Your task to perform on an android device: Go to wifi settings Image 0: 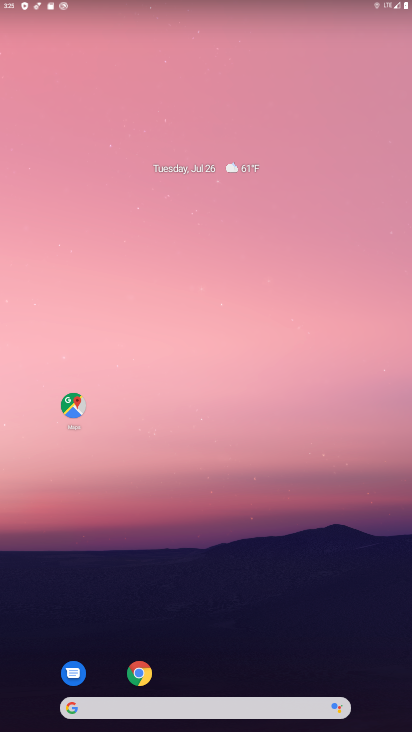
Step 0: drag from (223, 632) to (247, 3)
Your task to perform on an android device: Go to wifi settings Image 1: 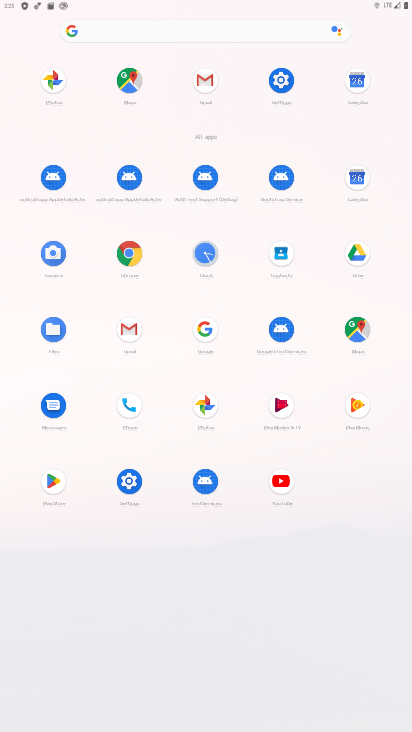
Step 1: click (281, 74)
Your task to perform on an android device: Go to wifi settings Image 2: 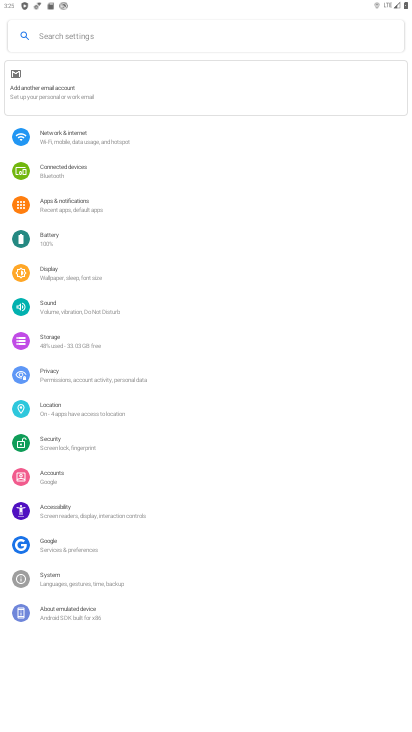
Step 2: click (103, 132)
Your task to perform on an android device: Go to wifi settings Image 3: 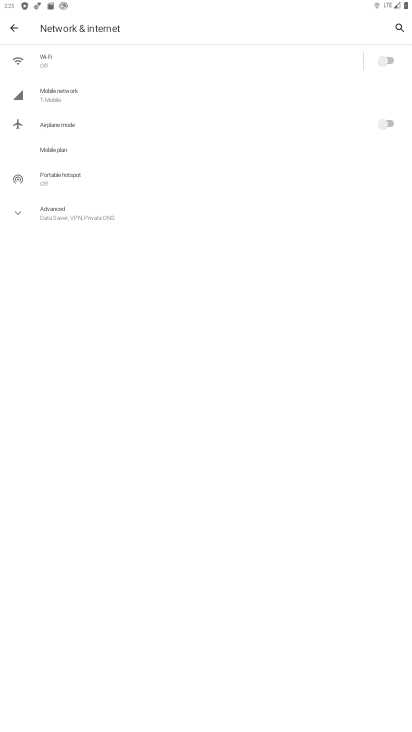
Step 3: click (100, 64)
Your task to perform on an android device: Go to wifi settings Image 4: 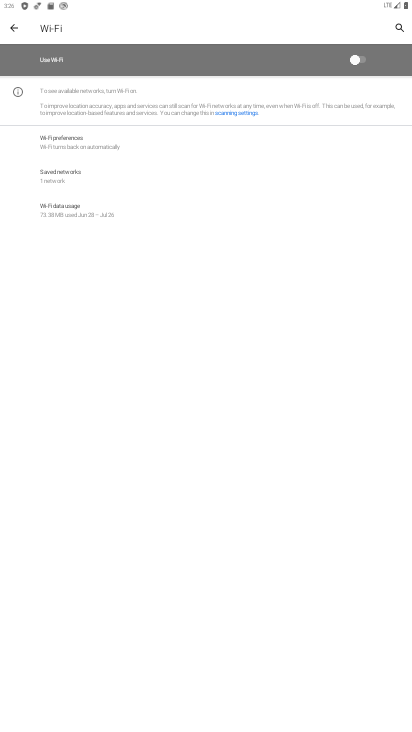
Step 4: click (356, 56)
Your task to perform on an android device: Go to wifi settings Image 5: 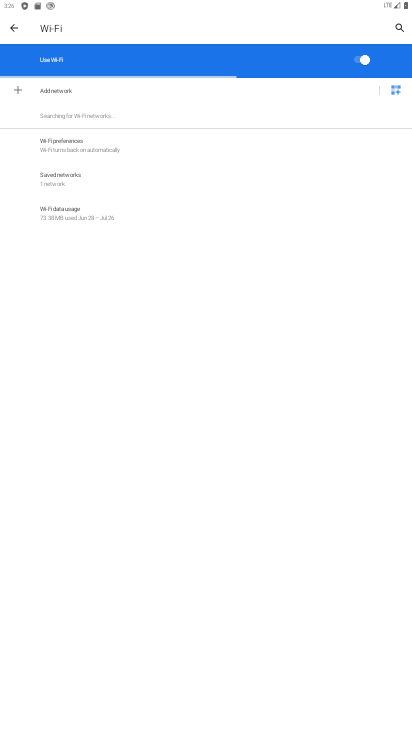
Step 5: task complete